Your task to perform on an android device: change the upload size in google photos Image 0: 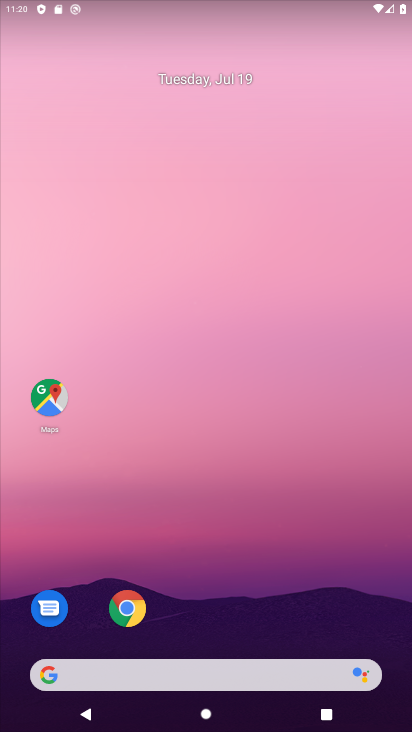
Step 0: drag from (32, 689) to (357, 77)
Your task to perform on an android device: change the upload size in google photos Image 1: 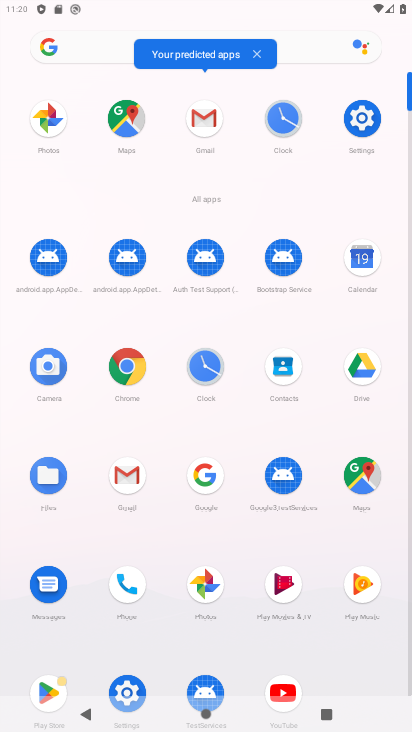
Step 1: click (202, 569)
Your task to perform on an android device: change the upload size in google photos Image 2: 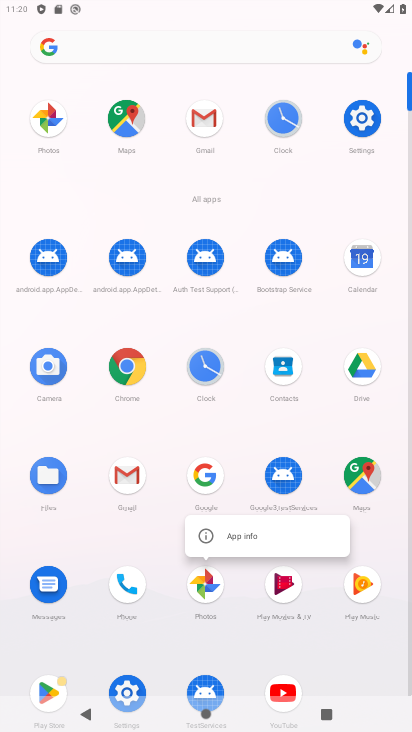
Step 2: click (218, 576)
Your task to perform on an android device: change the upload size in google photos Image 3: 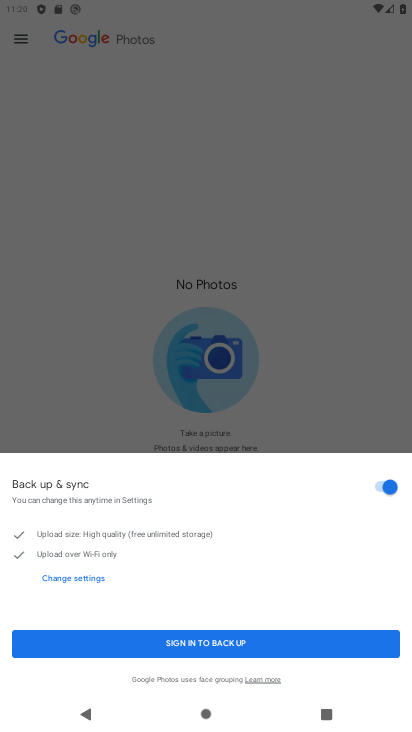
Step 3: click (120, 638)
Your task to perform on an android device: change the upload size in google photos Image 4: 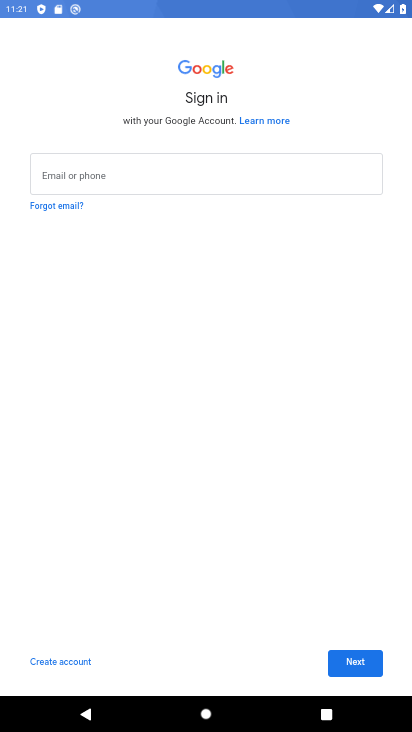
Step 4: task complete